Your task to perform on an android device: Open battery settings Image 0: 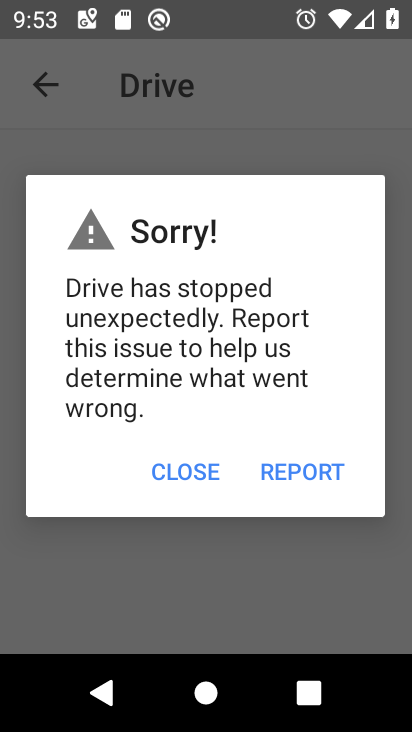
Step 0: drag from (163, 380) to (259, 116)
Your task to perform on an android device: Open battery settings Image 1: 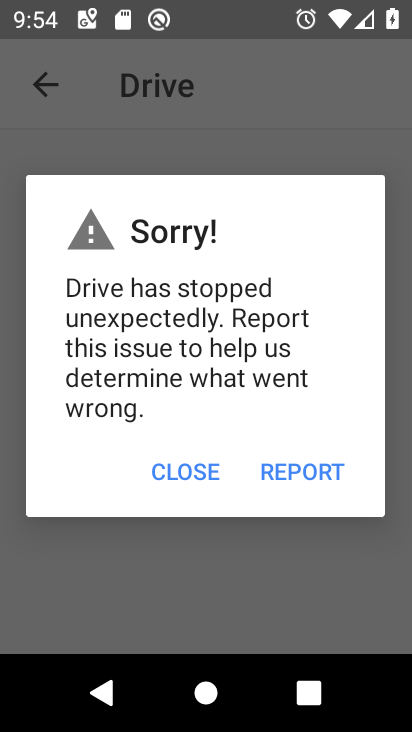
Step 1: click (332, 77)
Your task to perform on an android device: Open battery settings Image 2: 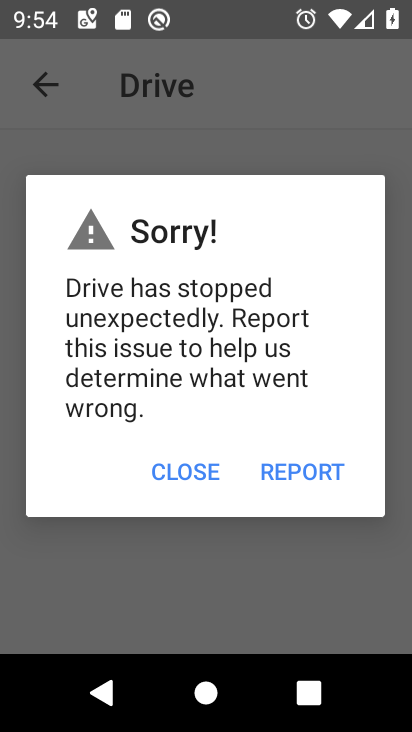
Step 2: press home button
Your task to perform on an android device: Open battery settings Image 3: 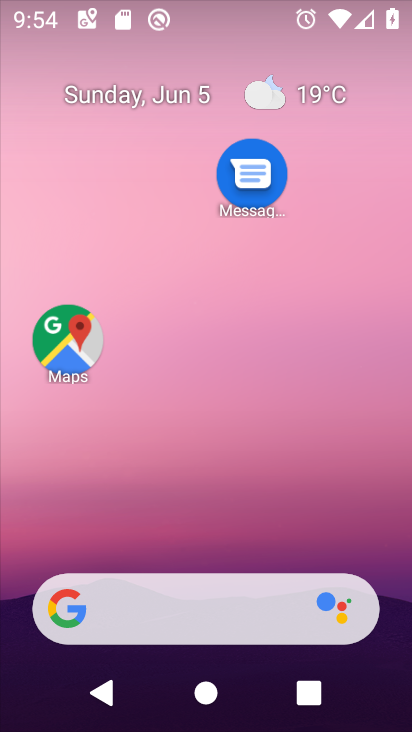
Step 3: drag from (284, 526) to (303, 93)
Your task to perform on an android device: Open battery settings Image 4: 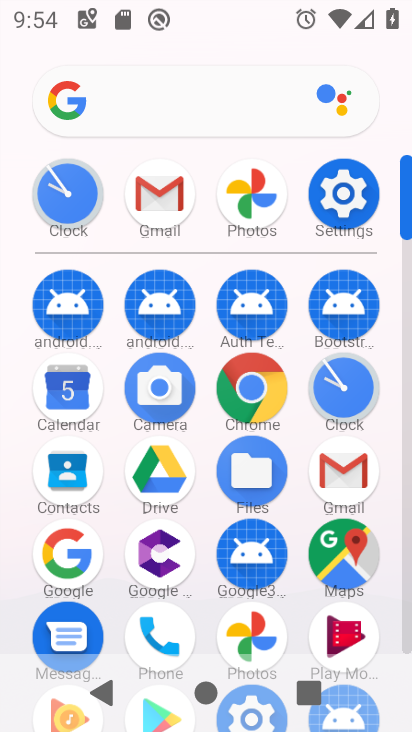
Step 4: click (348, 206)
Your task to perform on an android device: Open battery settings Image 5: 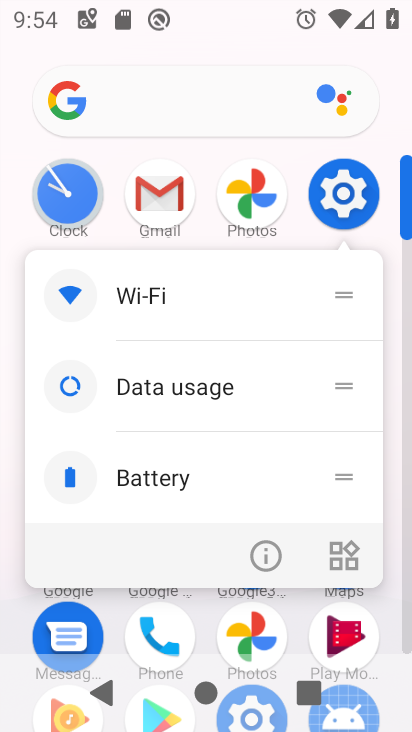
Step 5: click (271, 553)
Your task to perform on an android device: Open battery settings Image 6: 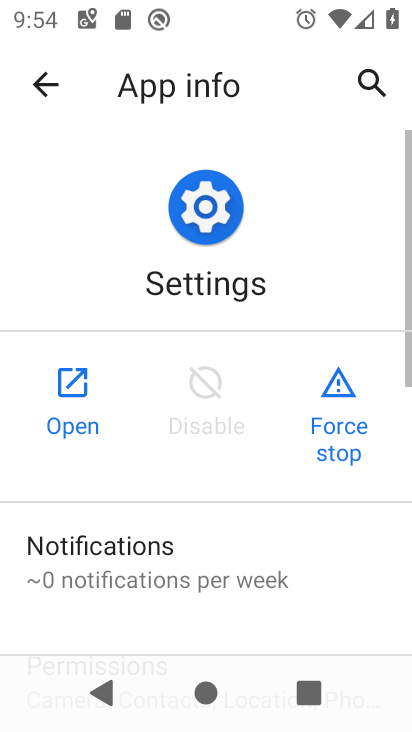
Step 6: click (76, 412)
Your task to perform on an android device: Open battery settings Image 7: 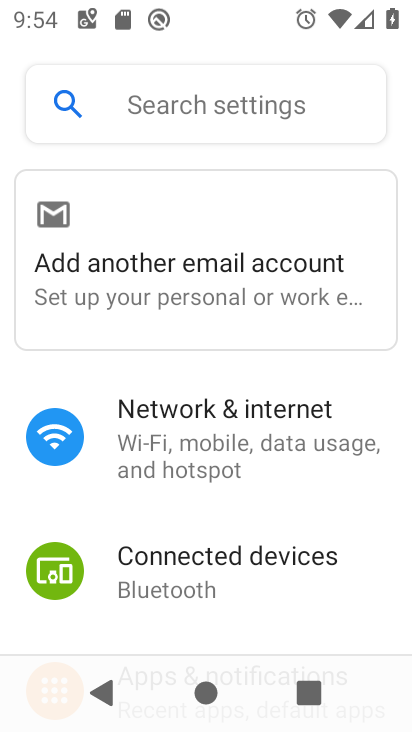
Step 7: drag from (227, 547) to (367, 53)
Your task to perform on an android device: Open battery settings Image 8: 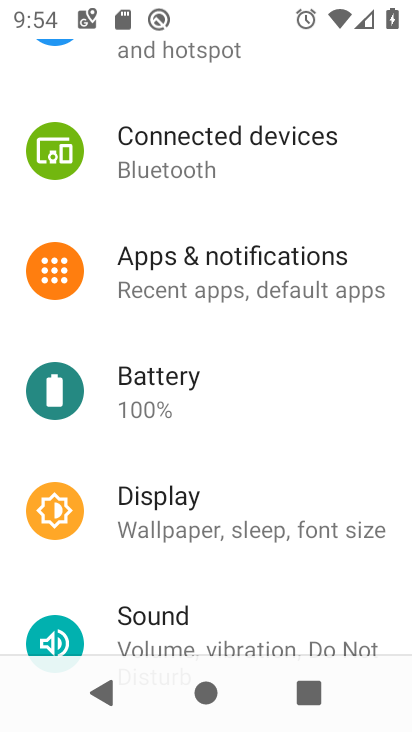
Step 8: click (233, 378)
Your task to perform on an android device: Open battery settings Image 9: 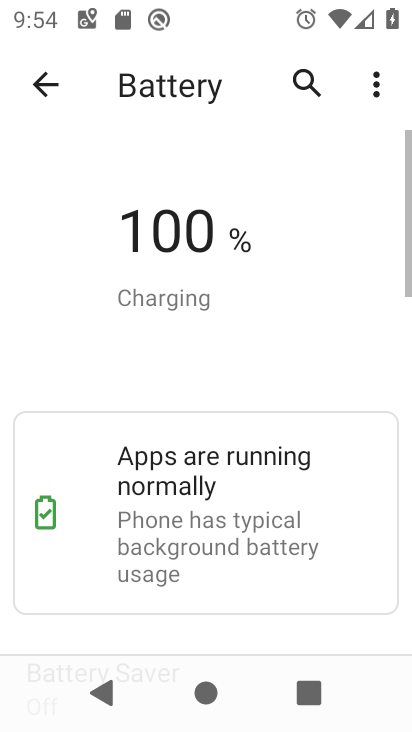
Step 9: task complete